Your task to perform on an android device: Do I have any events tomorrow? Image 0: 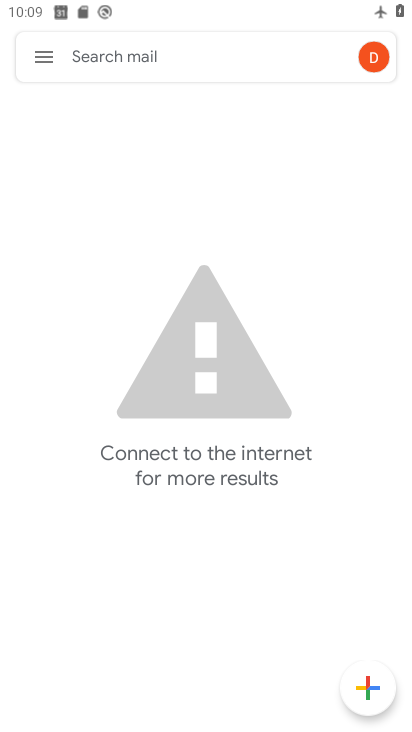
Step 0: click (296, 484)
Your task to perform on an android device: Do I have any events tomorrow? Image 1: 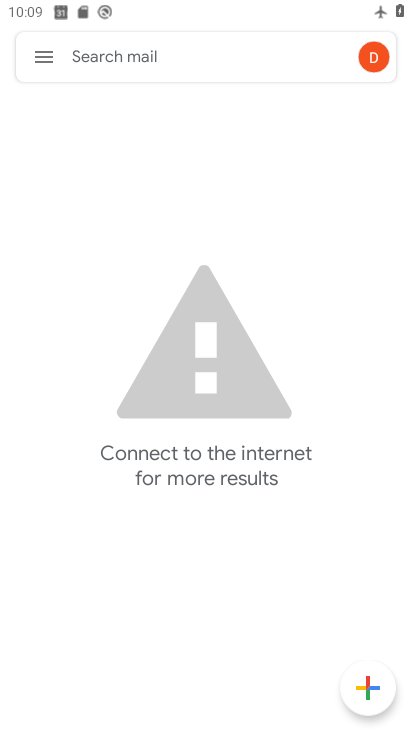
Step 1: press home button
Your task to perform on an android device: Do I have any events tomorrow? Image 2: 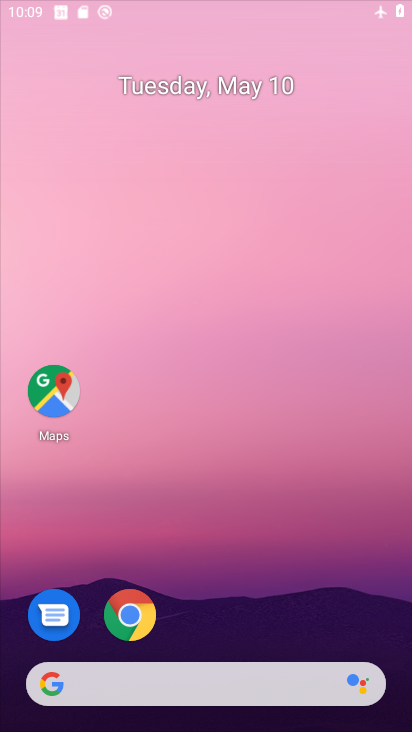
Step 2: drag from (208, 574) to (244, 58)
Your task to perform on an android device: Do I have any events tomorrow? Image 3: 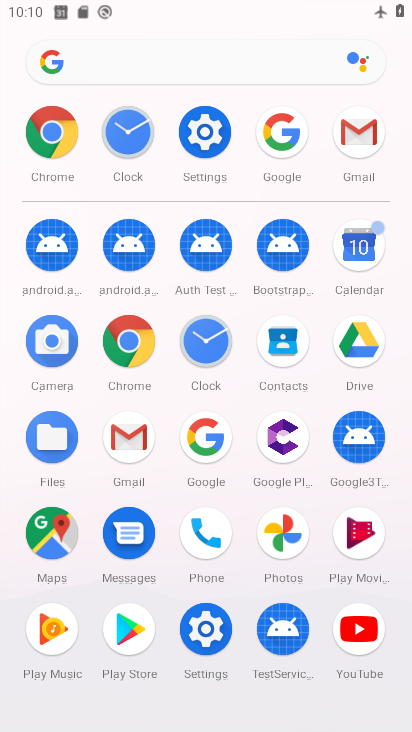
Step 3: click (359, 217)
Your task to perform on an android device: Do I have any events tomorrow? Image 4: 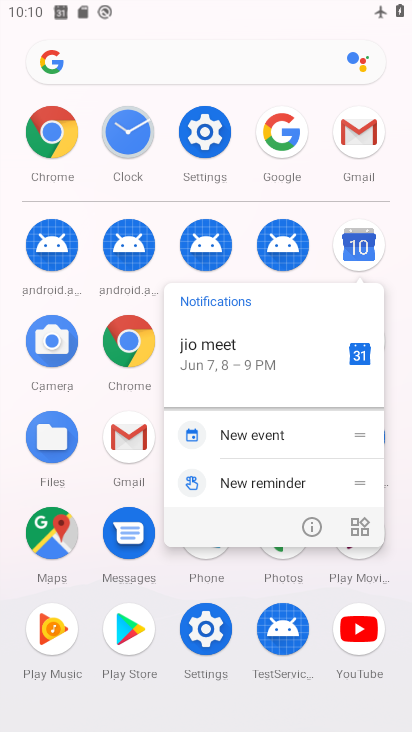
Step 4: click (313, 517)
Your task to perform on an android device: Do I have any events tomorrow? Image 5: 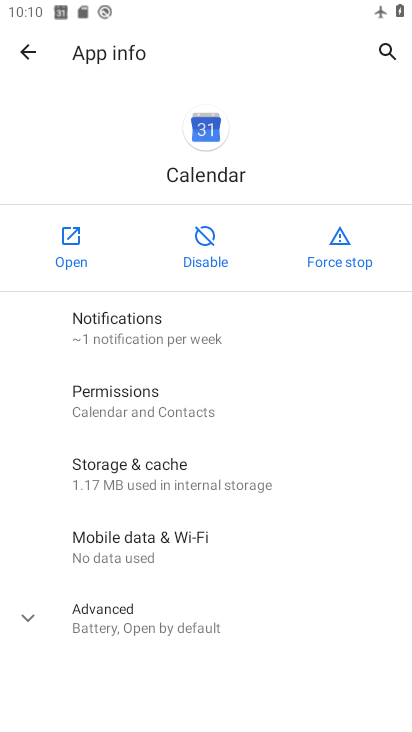
Step 5: click (63, 262)
Your task to perform on an android device: Do I have any events tomorrow? Image 6: 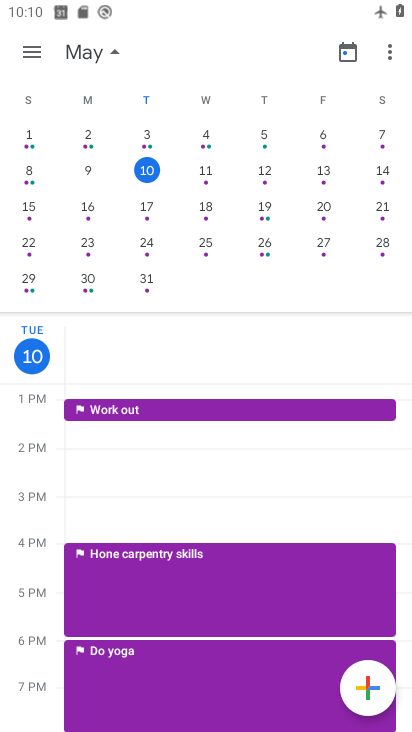
Step 6: task complete